Your task to perform on an android device: turn on priority inbox in the gmail app Image 0: 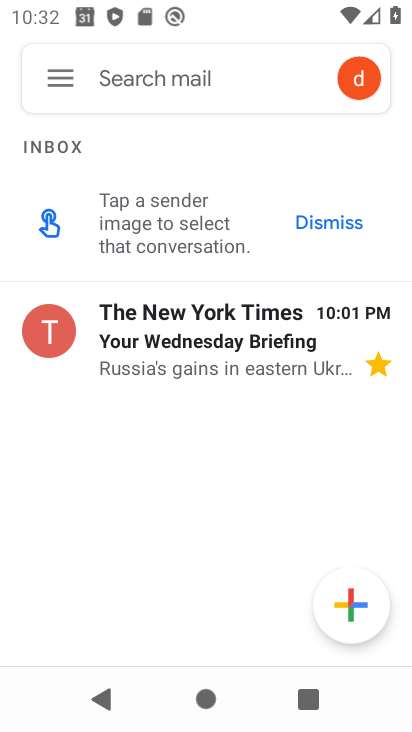
Step 0: click (64, 80)
Your task to perform on an android device: turn on priority inbox in the gmail app Image 1: 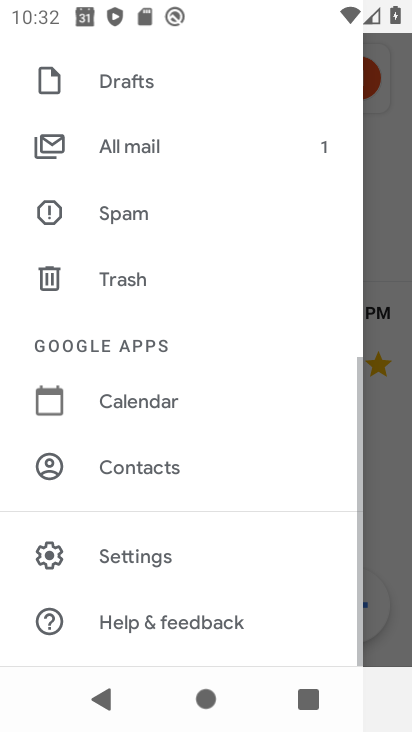
Step 1: click (193, 541)
Your task to perform on an android device: turn on priority inbox in the gmail app Image 2: 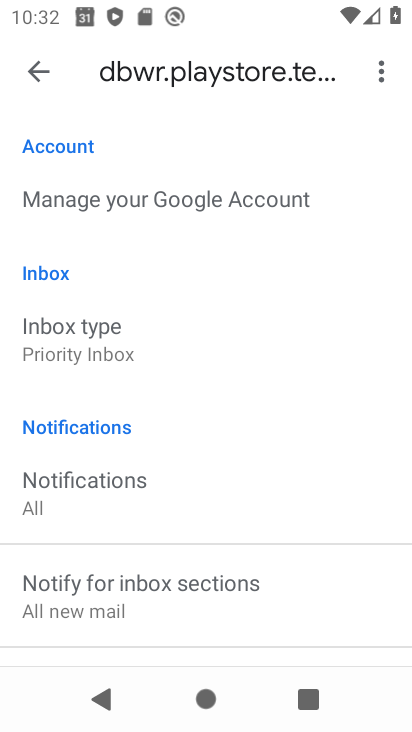
Step 2: task complete